Your task to perform on an android device: turn on javascript in the chrome app Image 0: 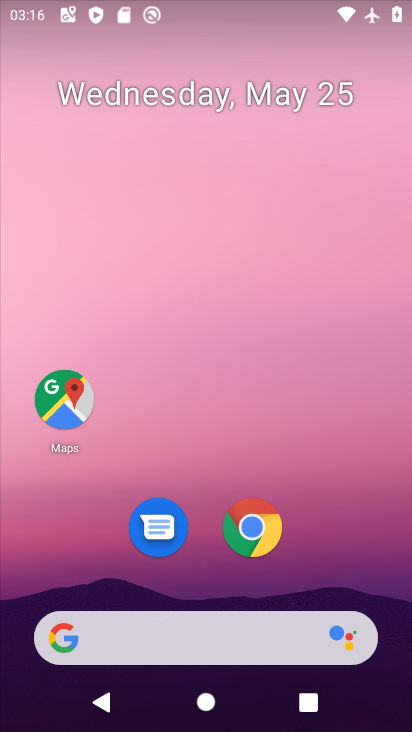
Step 0: click (267, 228)
Your task to perform on an android device: turn on javascript in the chrome app Image 1: 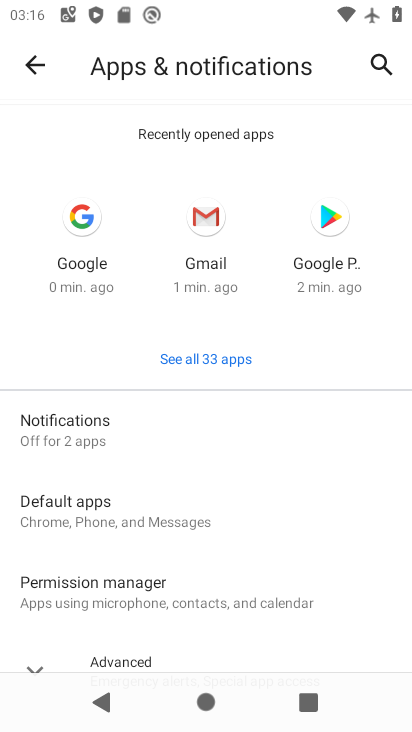
Step 1: press home button
Your task to perform on an android device: turn on javascript in the chrome app Image 2: 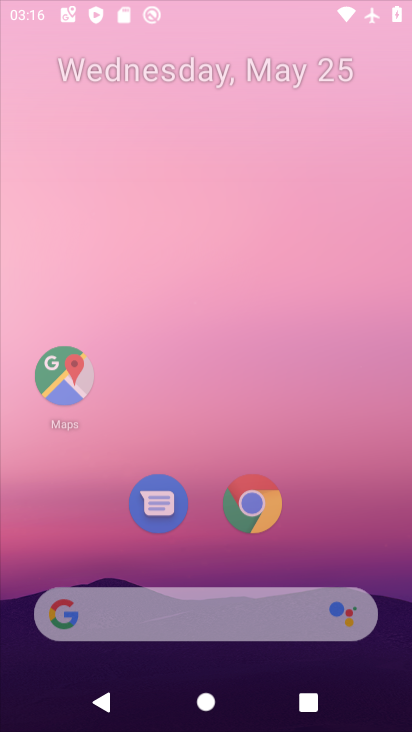
Step 2: drag from (222, 551) to (314, 68)
Your task to perform on an android device: turn on javascript in the chrome app Image 3: 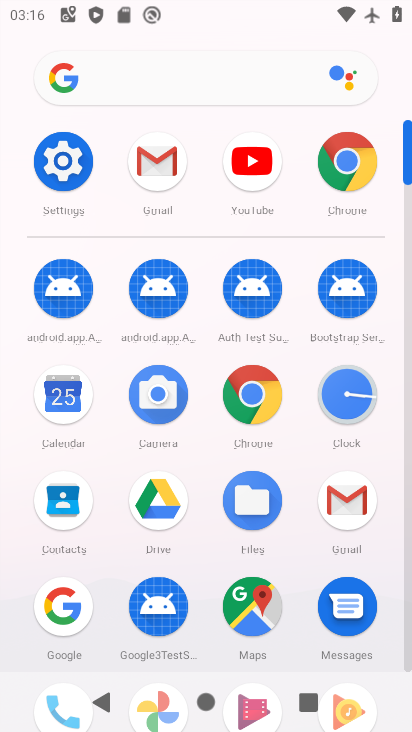
Step 3: click (358, 165)
Your task to perform on an android device: turn on javascript in the chrome app Image 4: 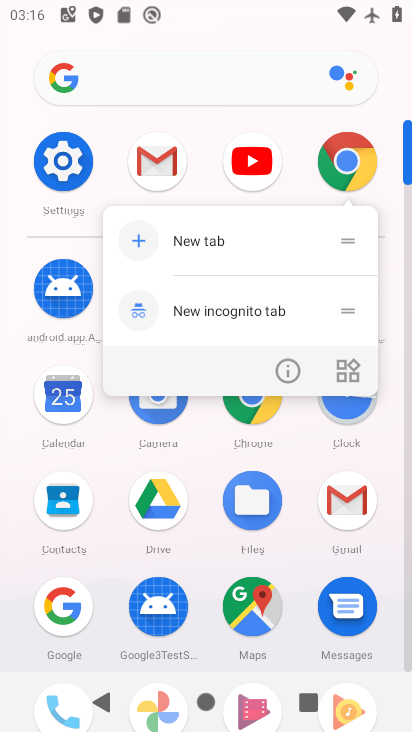
Step 4: click (288, 363)
Your task to perform on an android device: turn on javascript in the chrome app Image 5: 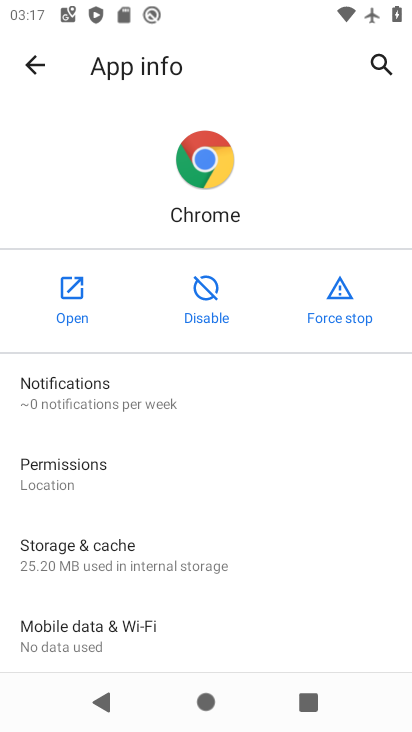
Step 5: click (61, 285)
Your task to perform on an android device: turn on javascript in the chrome app Image 6: 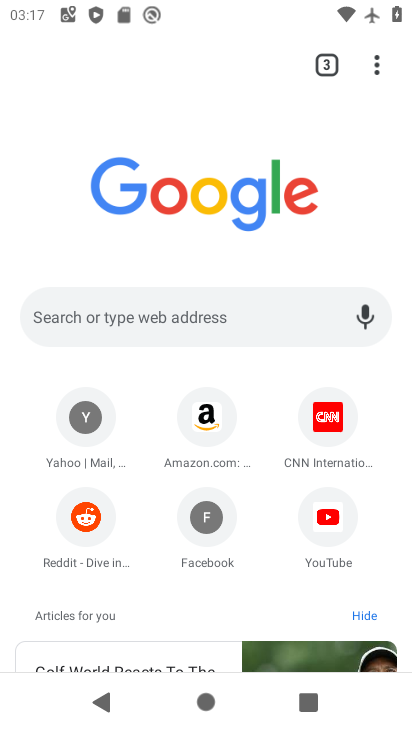
Step 6: click (378, 53)
Your task to perform on an android device: turn on javascript in the chrome app Image 7: 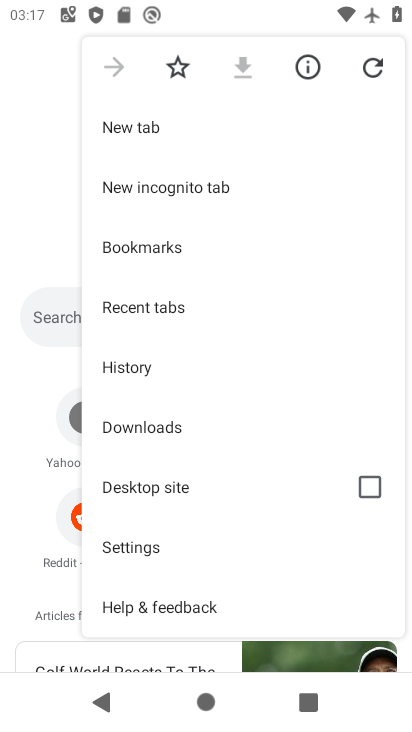
Step 7: click (148, 549)
Your task to perform on an android device: turn on javascript in the chrome app Image 8: 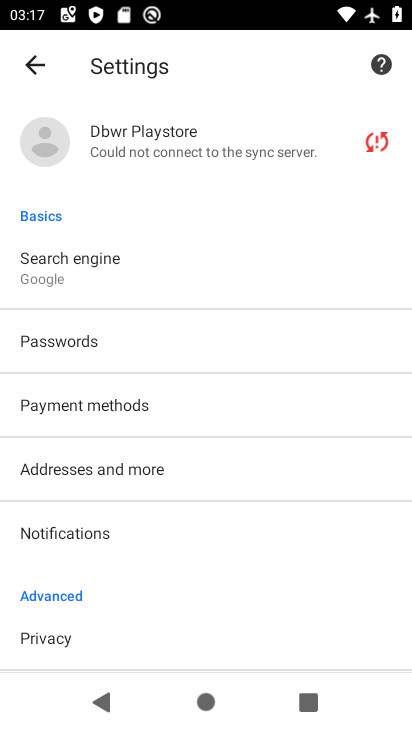
Step 8: drag from (158, 569) to (207, 174)
Your task to perform on an android device: turn on javascript in the chrome app Image 9: 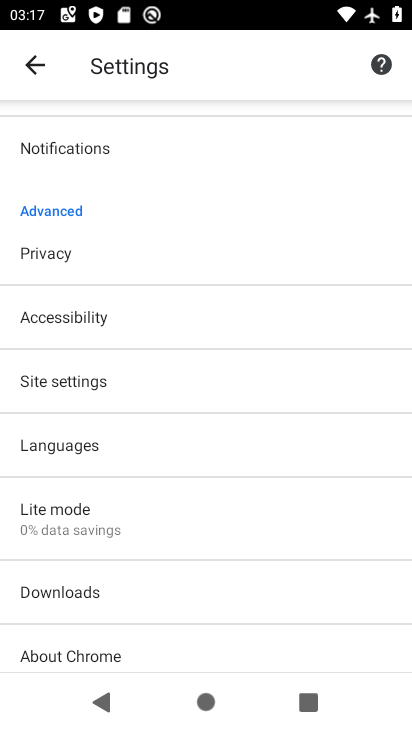
Step 9: click (83, 379)
Your task to perform on an android device: turn on javascript in the chrome app Image 10: 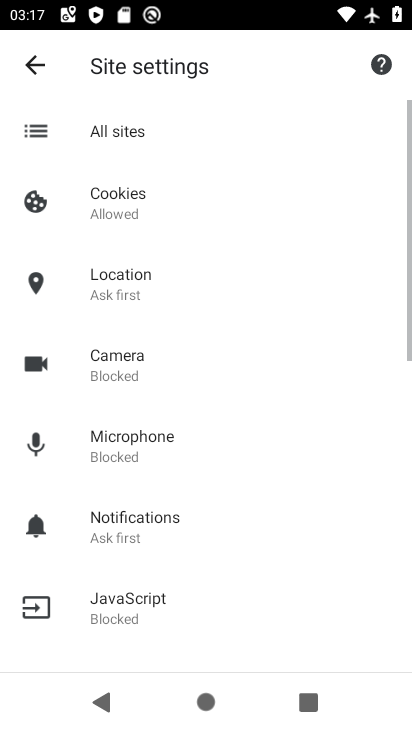
Step 10: drag from (221, 556) to (253, 209)
Your task to perform on an android device: turn on javascript in the chrome app Image 11: 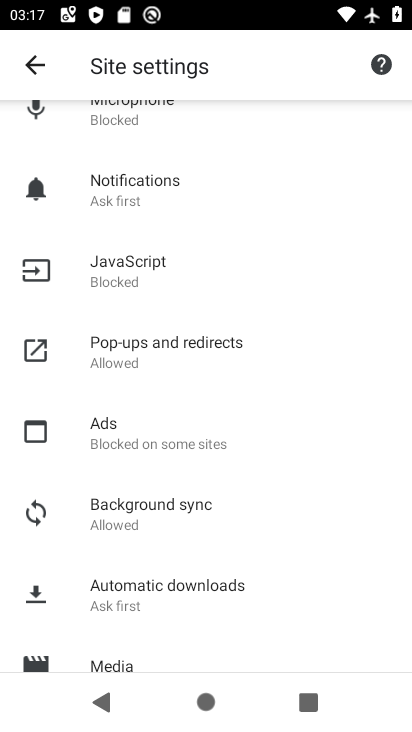
Step 11: click (159, 263)
Your task to perform on an android device: turn on javascript in the chrome app Image 12: 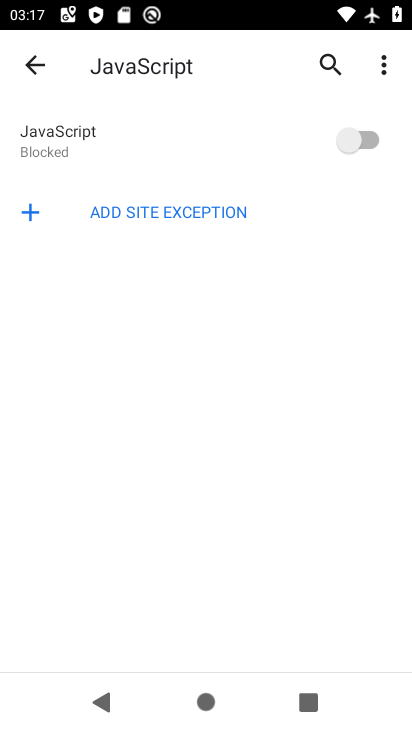
Step 12: click (288, 147)
Your task to perform on an android device: turn on javascript in the chrome app Image 13: 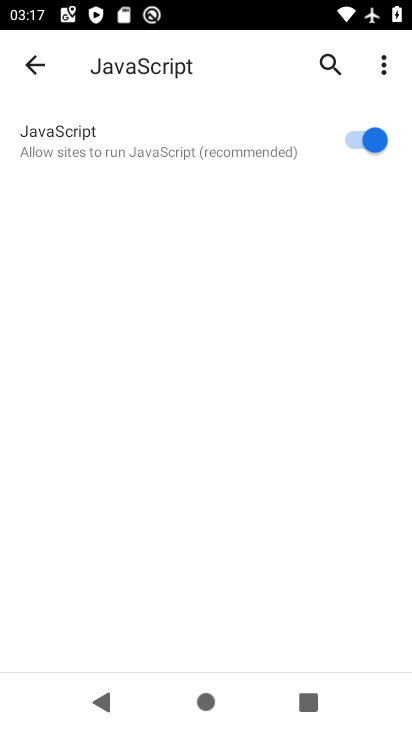
Step 13: task complete